Your task to perform on an android device: open device folders in google photos Image 0: 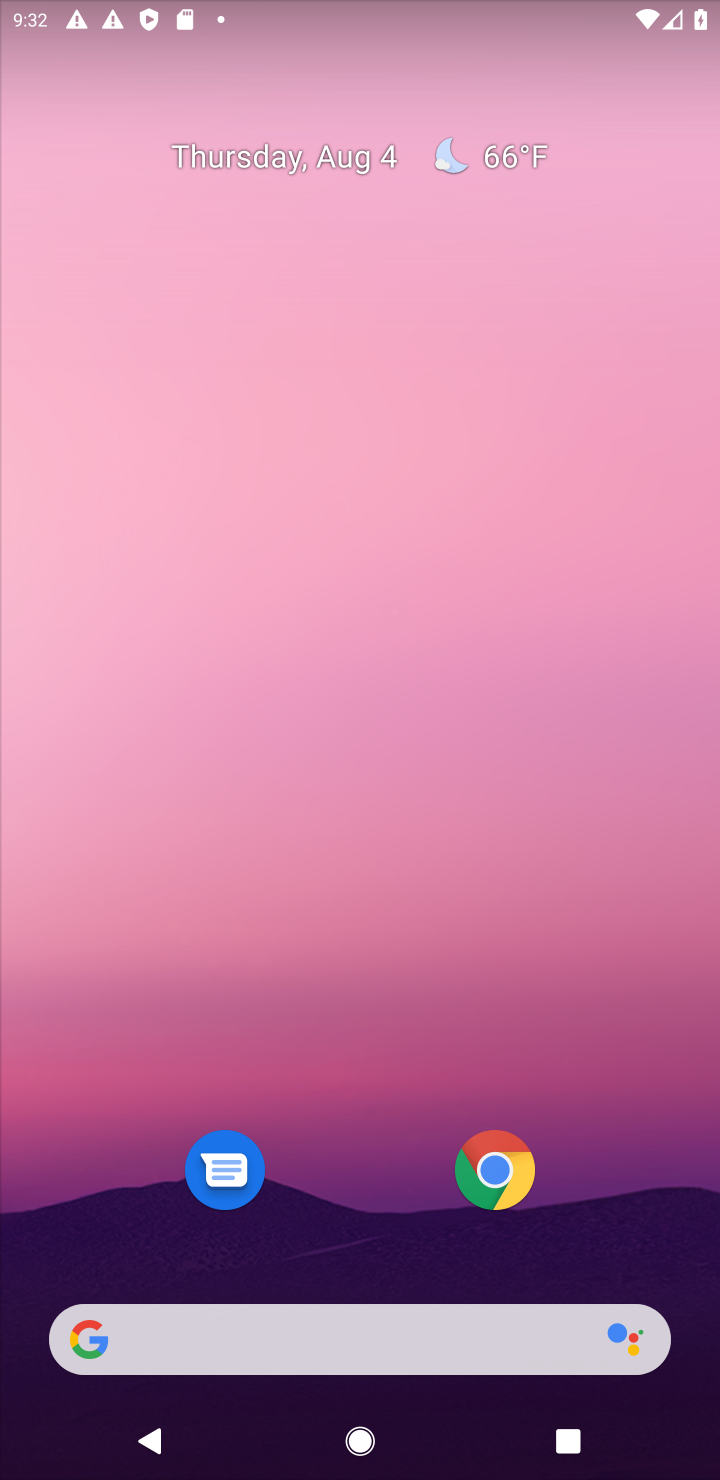
Step 0: drag from (358, 806) to (468, 410)
Your task to perform on an android device: open device folders in google photos Image 1: 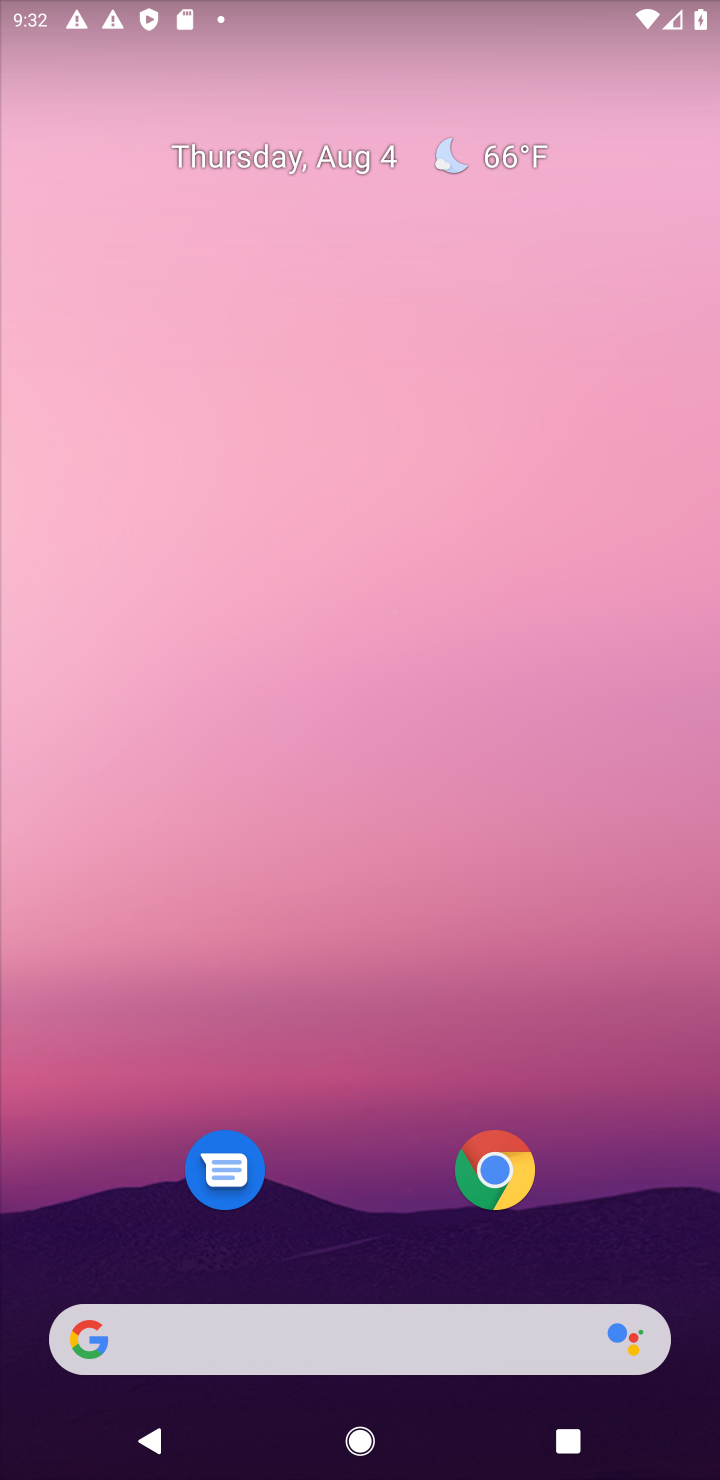
Step 1: drag from (360, 902) to (508, 180)
Your task to perform on an android device: open device folders in google photos Image 2: 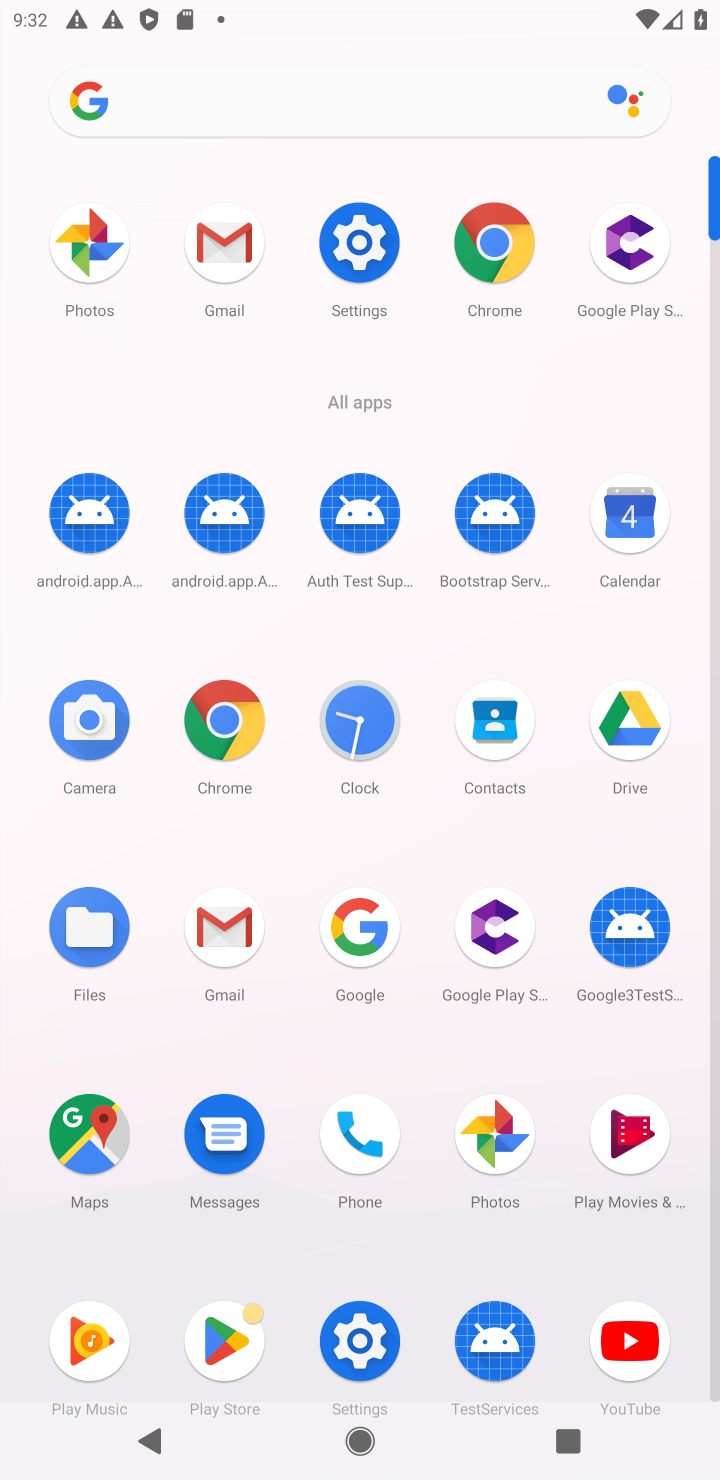
Step 2: click (95, 270)
Your task to perform on an android device: open device folders in google photos Image 3: 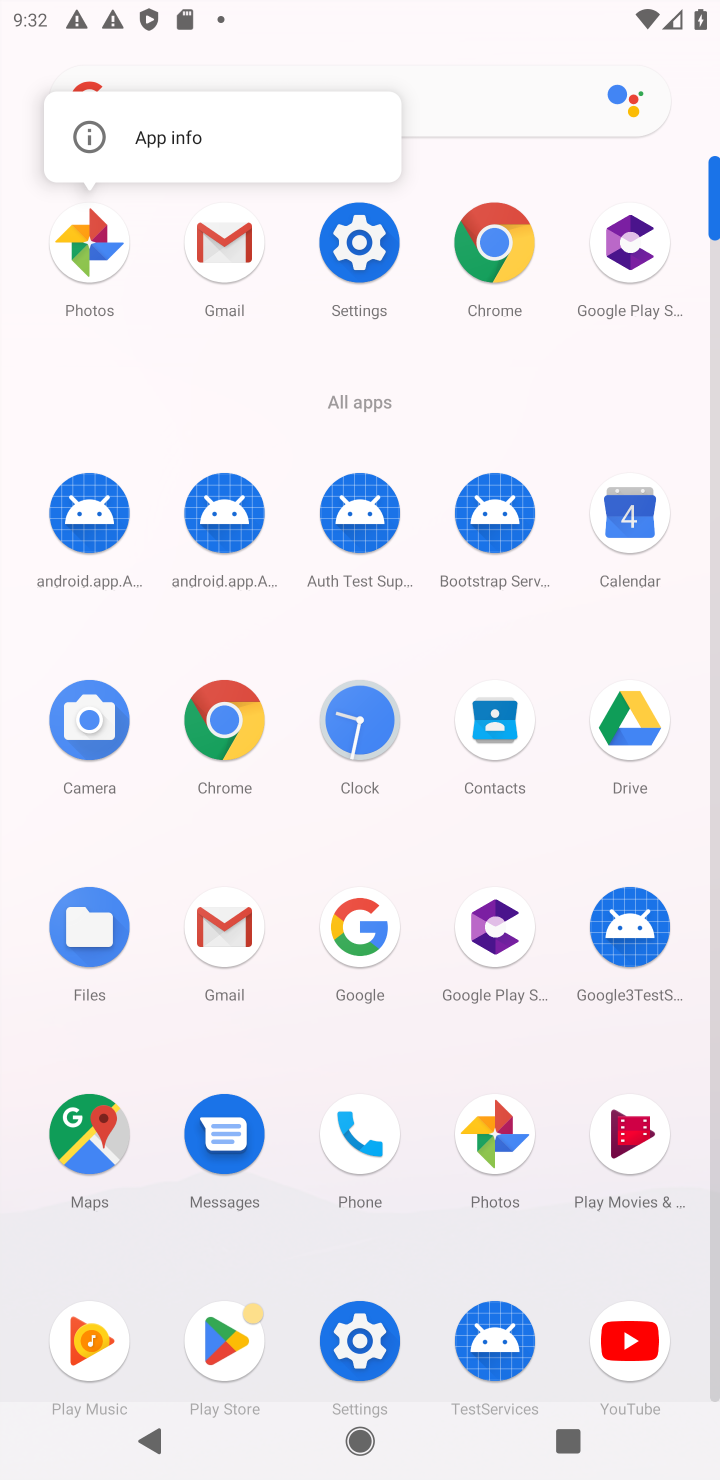
Step 3: click (81, 241)
Your task to perform on an android device: open device folders in google photos Image 4: 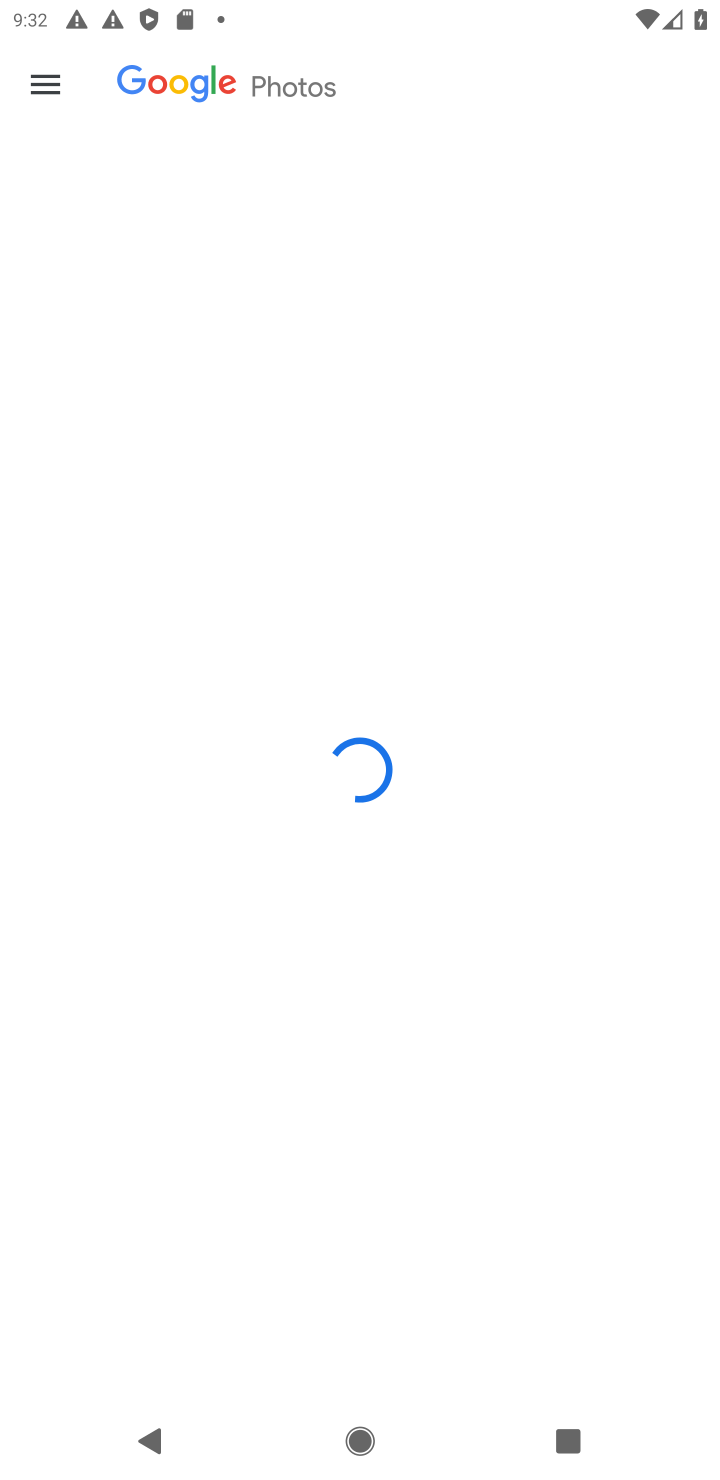
Step 4: click (51, 93)
Your task to perform on an android device: open device folders in google photos Image 5: 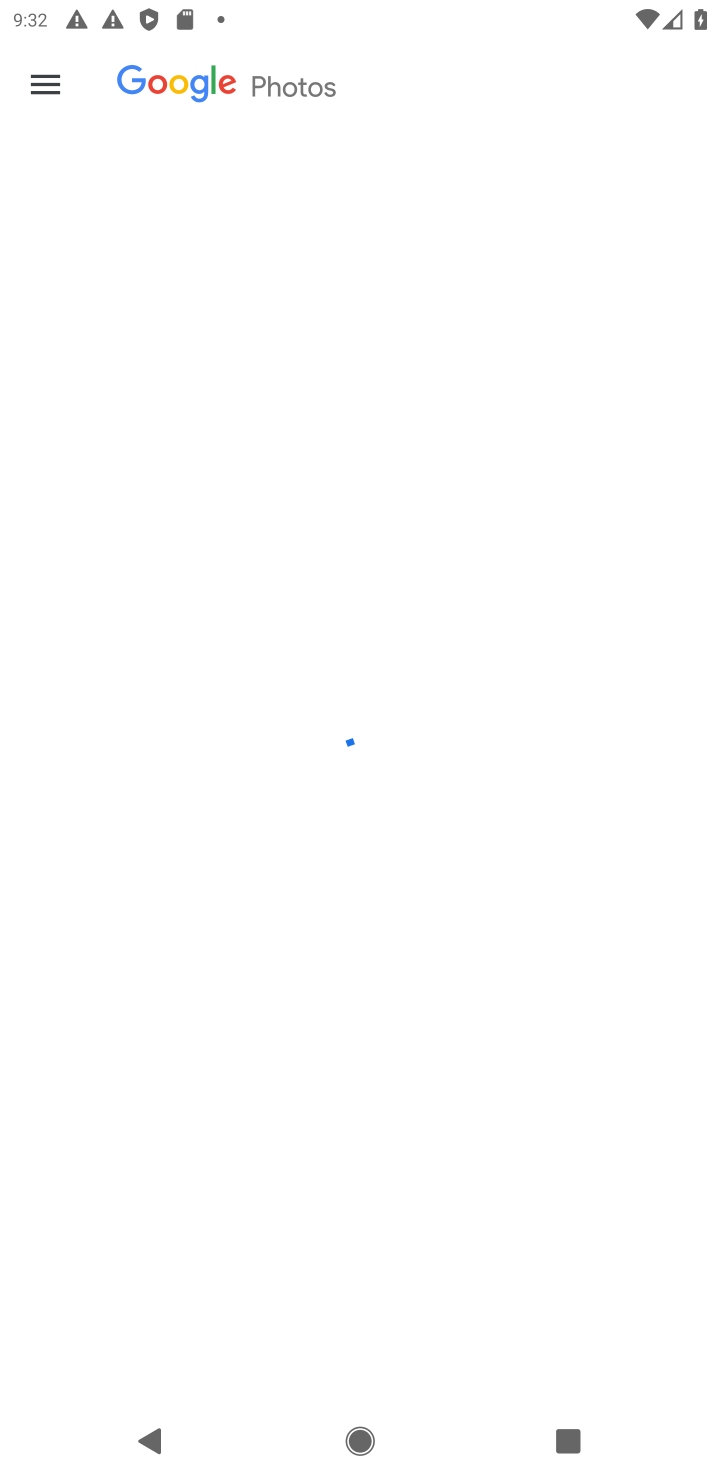
Step 5: click (51, 85)
Your task to perform on an android device: open device folders in google photos Image 6: 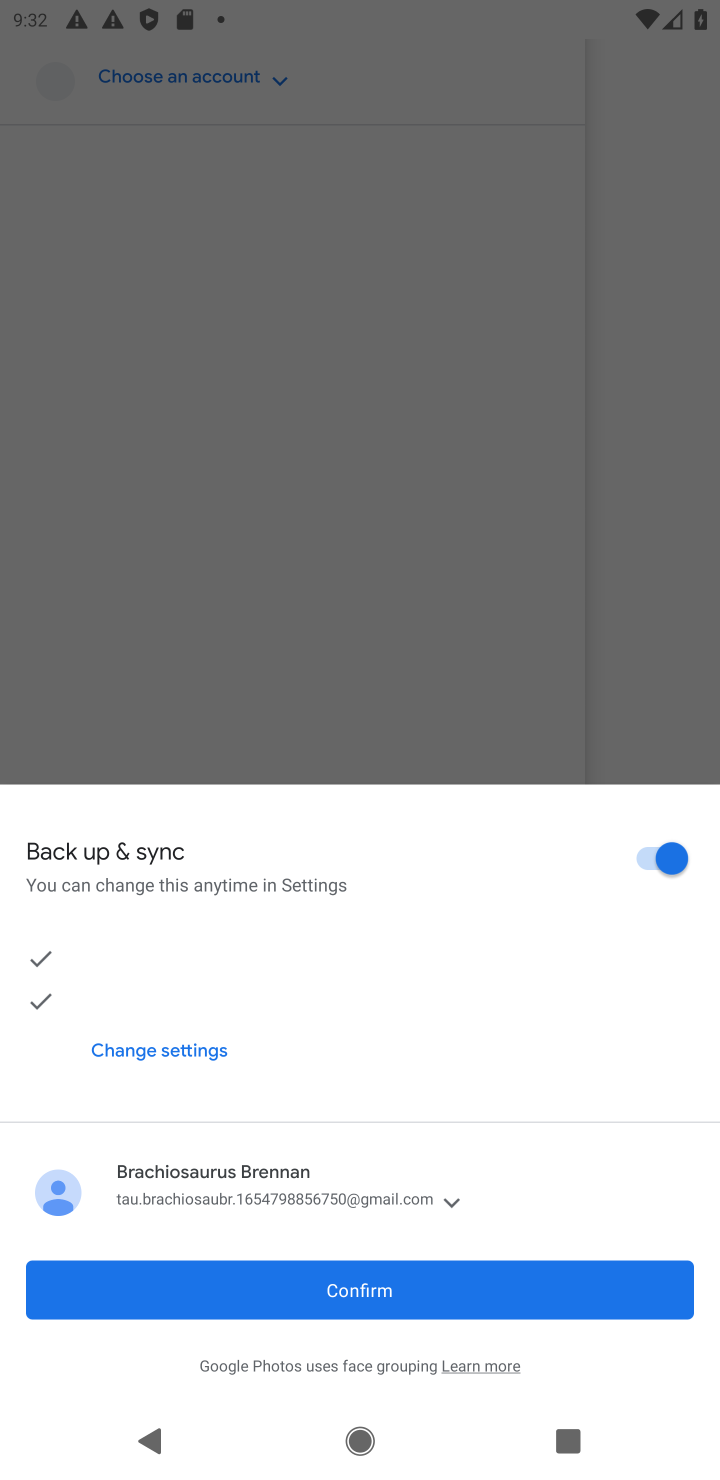
Step 6: click (382, 1289)
Your task to perform on an android device: open device folders in google photos Image 7: 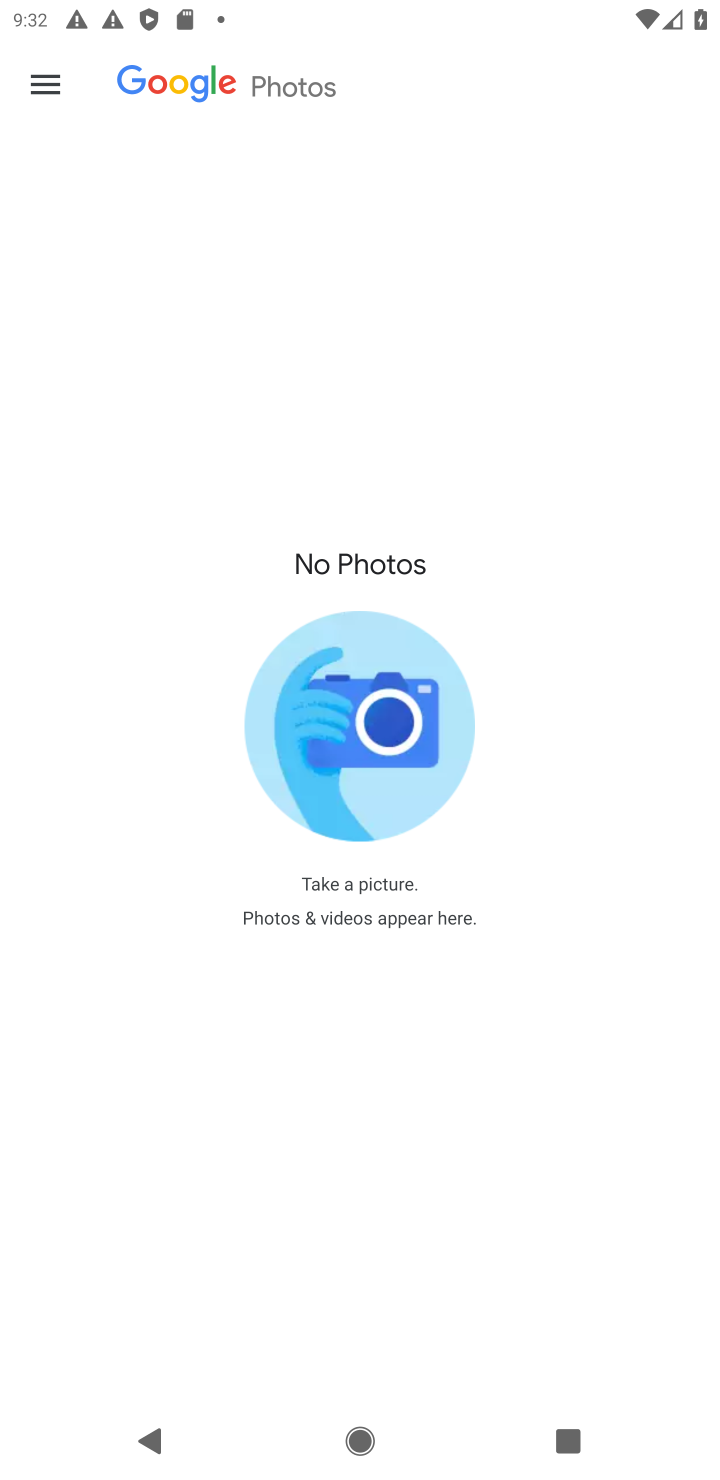
Step 7: click (62, 93)
Your task to perform on an android device: open device folders in google photos Image 8: 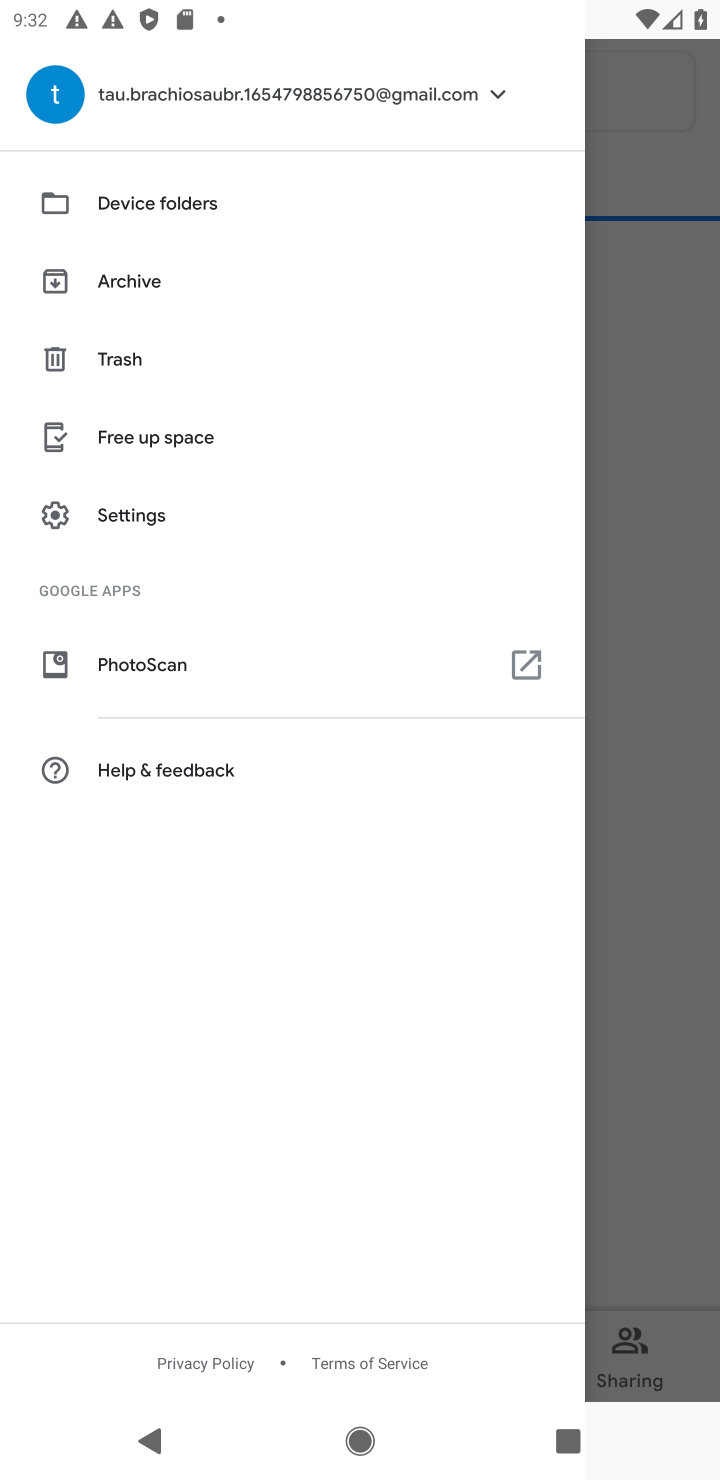
Step 8: click (157, 204)
Your task to perform on an android device: open device folders in google photos Image 9: 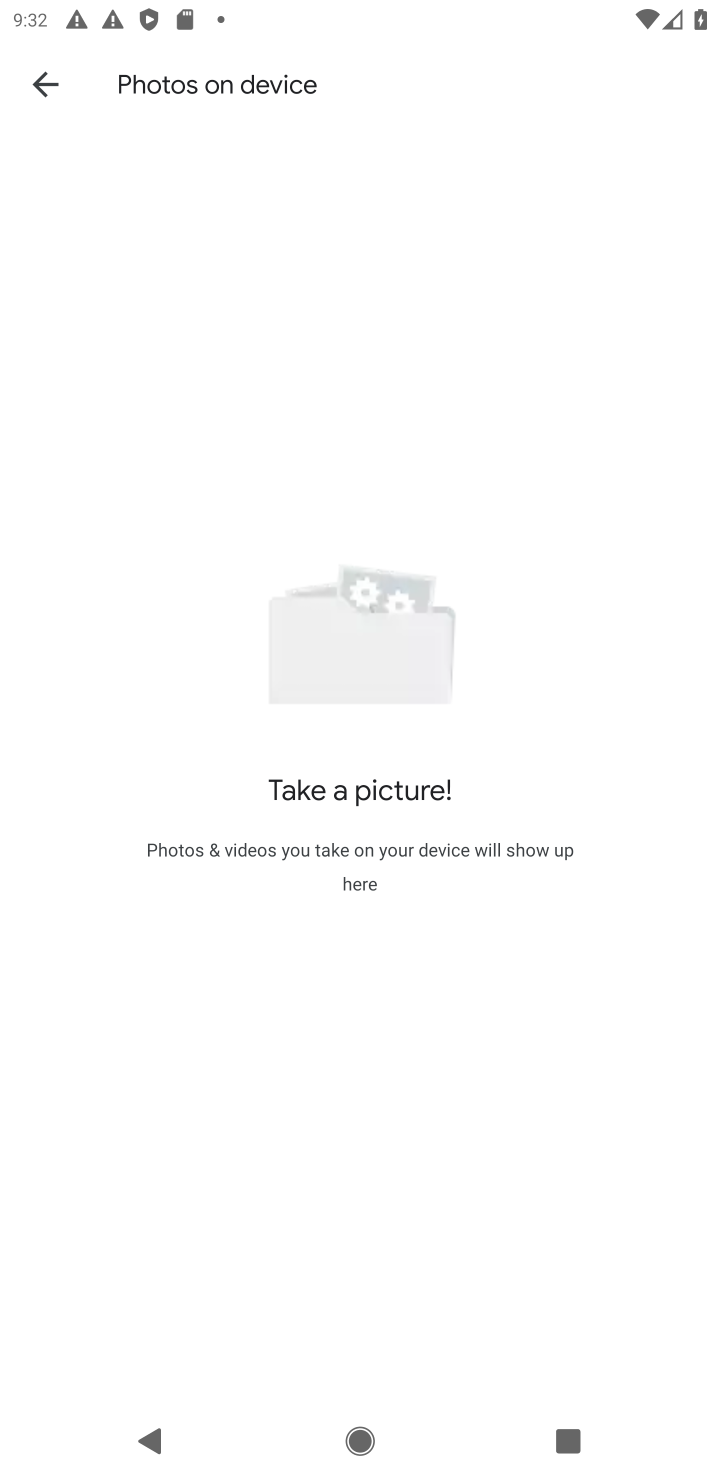
Step 9: task complete